Your task to perform on an android device: Open the stopwatch Image 0: 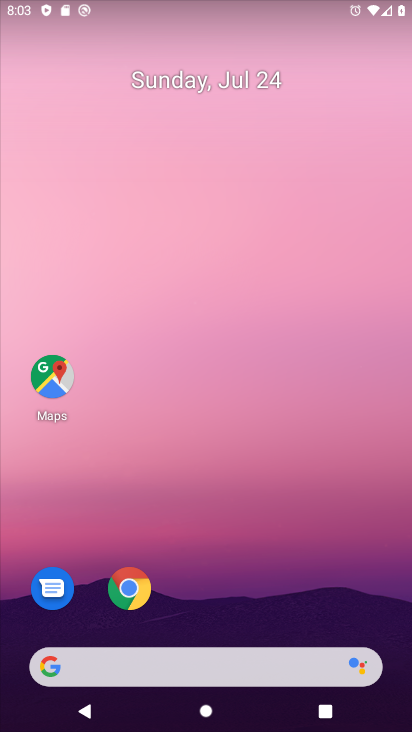
Step 0: drag from (201, 628) to (214, 288)
Your task to perform on an android device: Open the stopwatch Image 1: 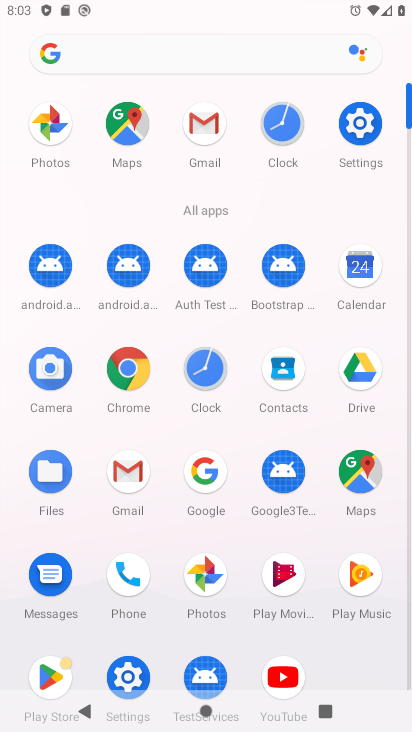
Step 1: click (283, 122)
Your task to perform on an android device: Open the stopwatch Image 2: 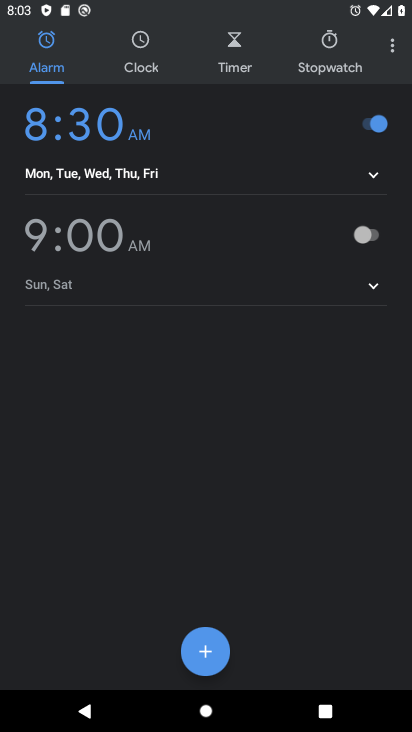
Step 2: click (321, 39)
Your task to perform on an android device: Open the stopwatch Image 3: 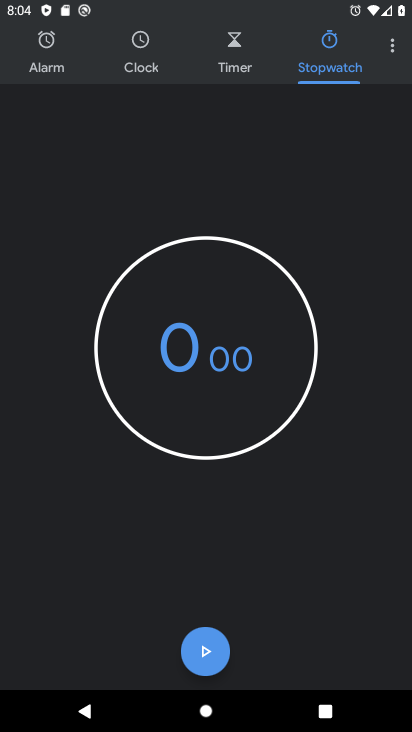
Step 3: task complete